Your task to perform on an android device: Open the web browser Image 0: 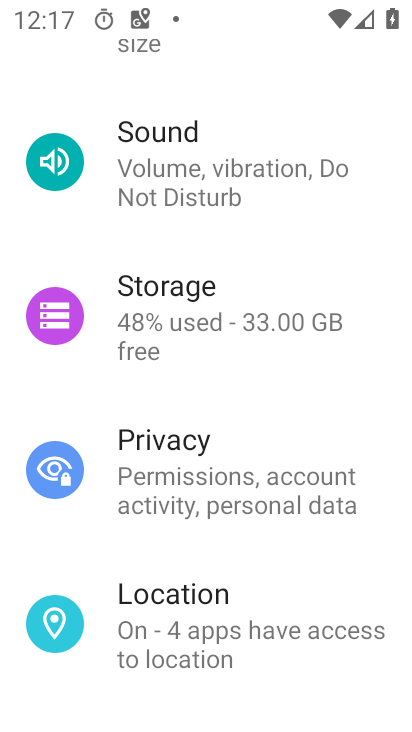
Step 0: press home button
Your task to perform on an android device: Open the web browser Image 1: 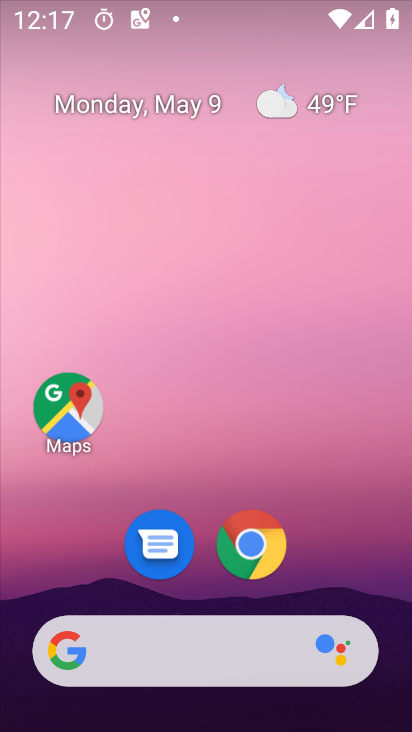
Step 1: drag from (234, 662) to (259, 61)
Your task to perform on an android device: Open the web browser Image 2: 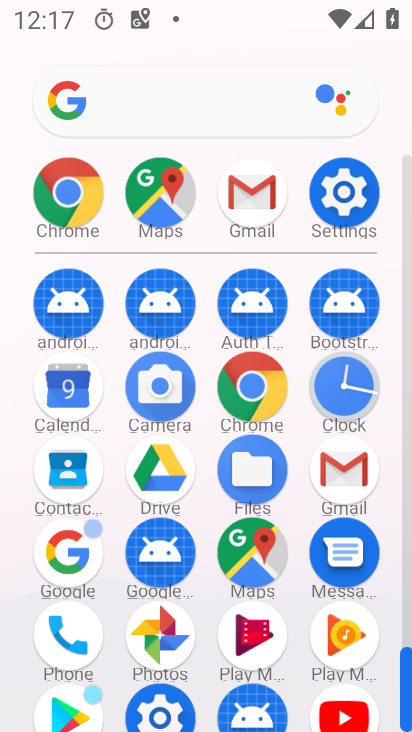
Step 2: click (268, 387)
Your task to perform on an android device: Open the web browser Image 3: 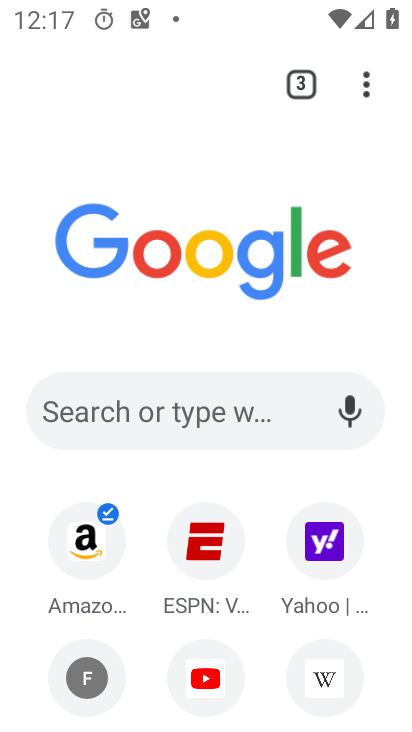
Step 3: drag from (260, 536) to (286, 165)
Your task to perform on an android device: Open the web browser Image 4: 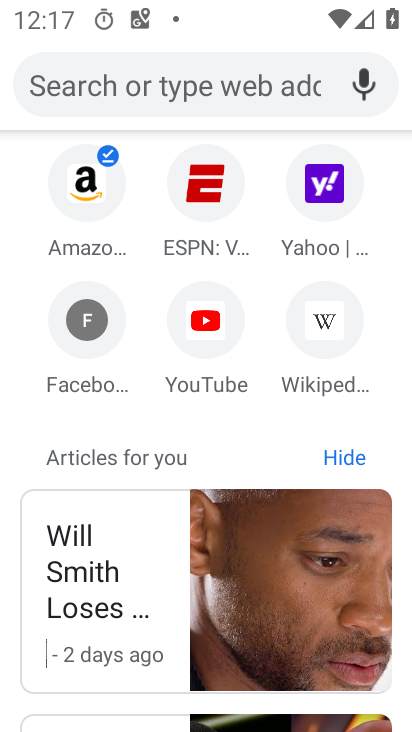
Step 4: drag from (276, 152) to (262, 574)
Your task to perform on an android device: Open the web browser Image 5: 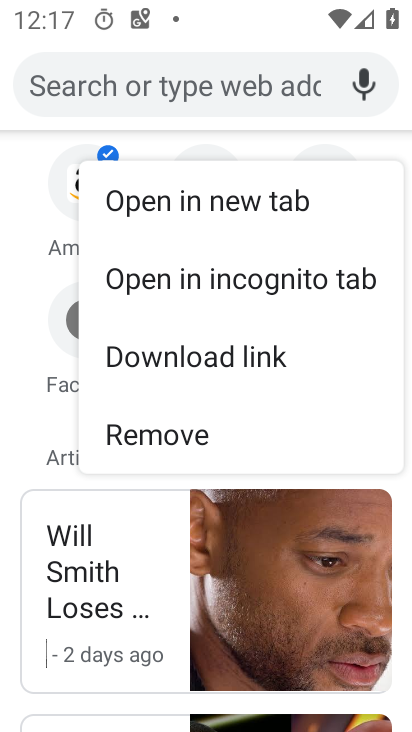
Step 5: click (220, 26)
Your task to perform on an android device: Open the web browser Image 6: 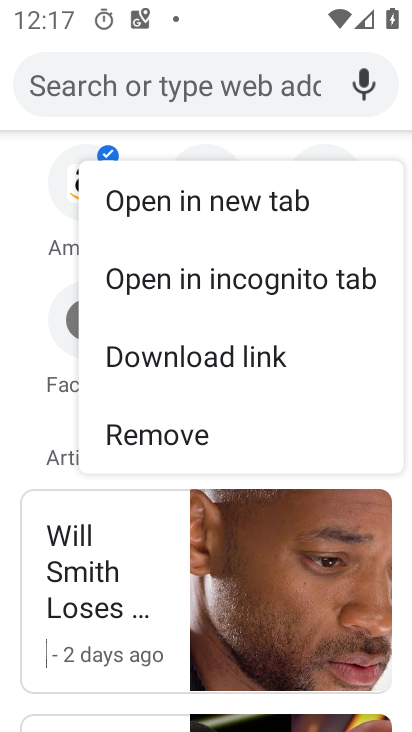
Step 6: click (16, 147)
Your task to perform on an android device: Open the web browser Image 7: 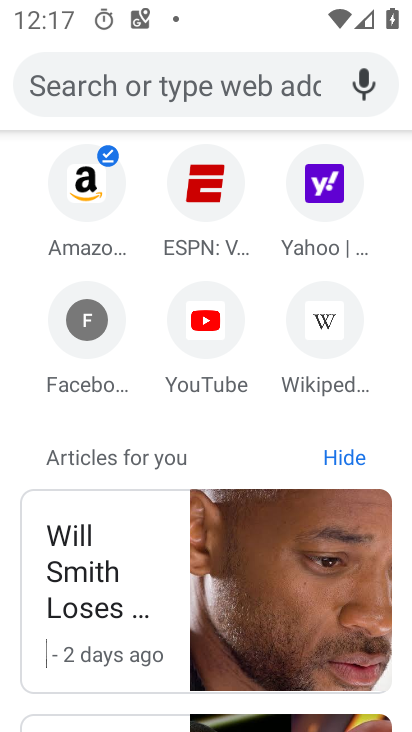
Step 7: task complete